Your task to perform on an android device: open chrome privacy settings Image 0: 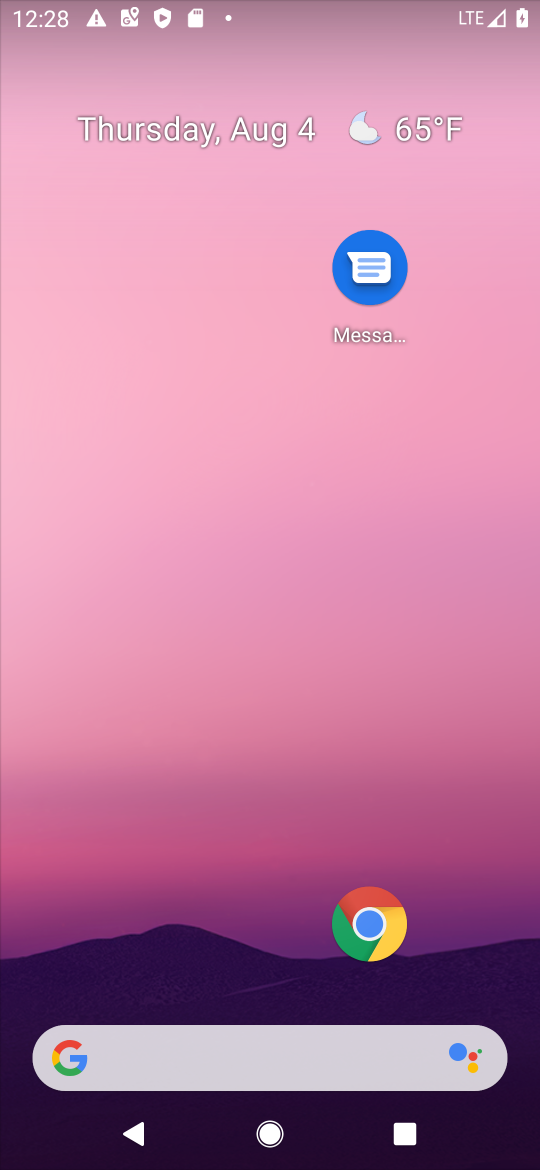
Step 0: click (358, 940)
Your task to perform on an android device: open chrome privacy settings Image 1: 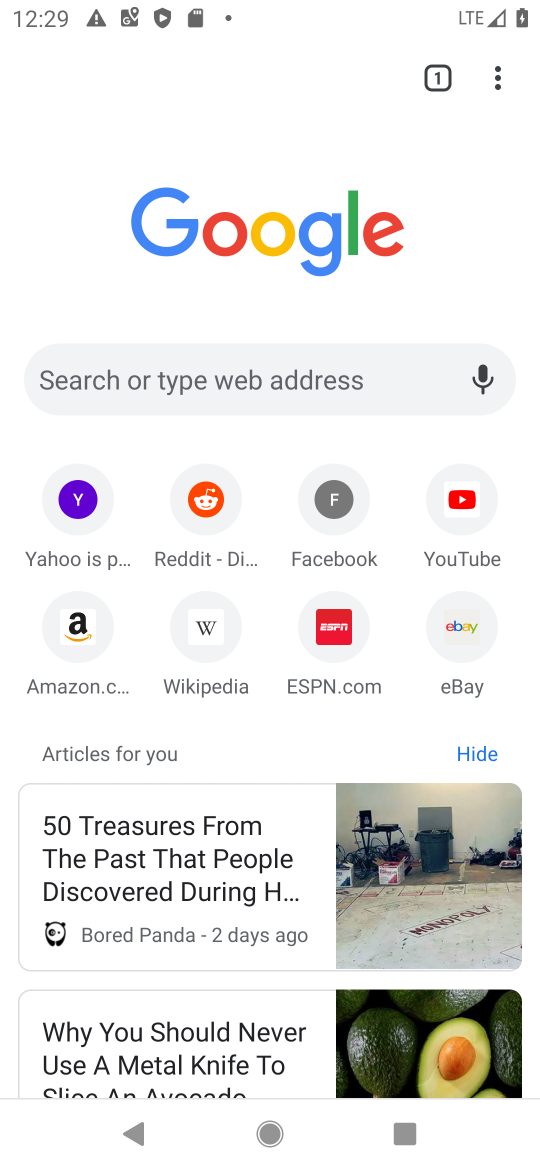
Step 1: click (486, 70)
Your task to perform on an android device: open chrome privacy settings Image 2: 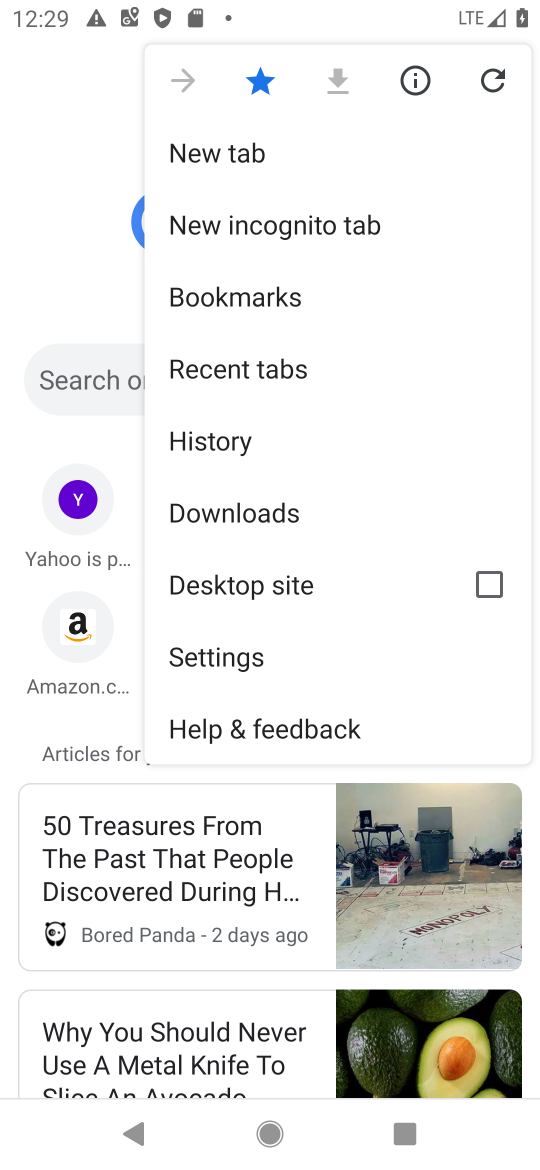
Step 2: click (255, 654)
Your task to perform on an android device: open chrome privacy settings Image 3: 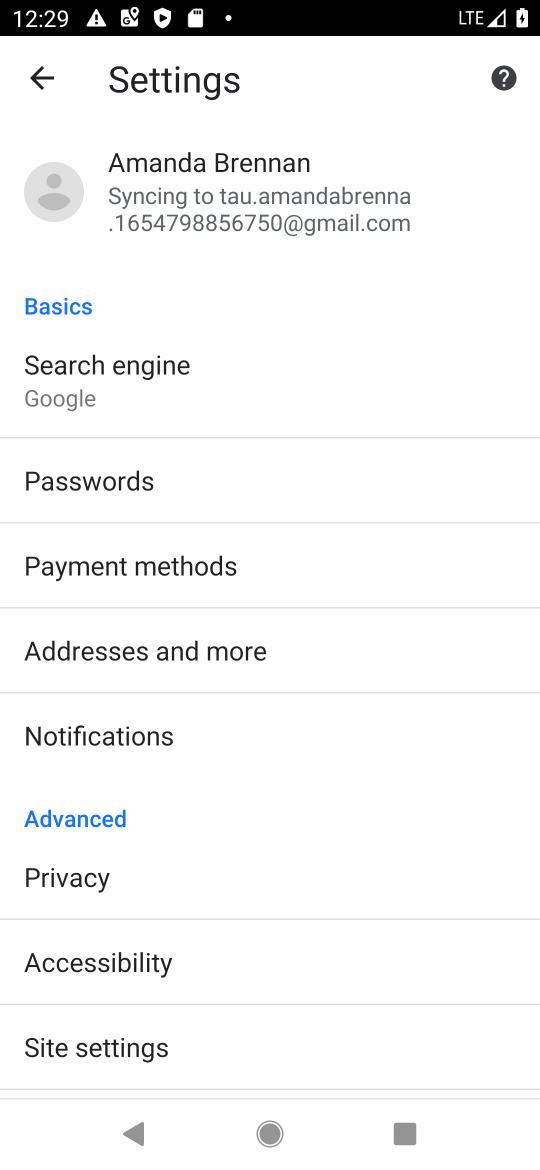
Step 3: click (502, 71)
Your task to perform on an android device: open chrome privacy settings Image 4: 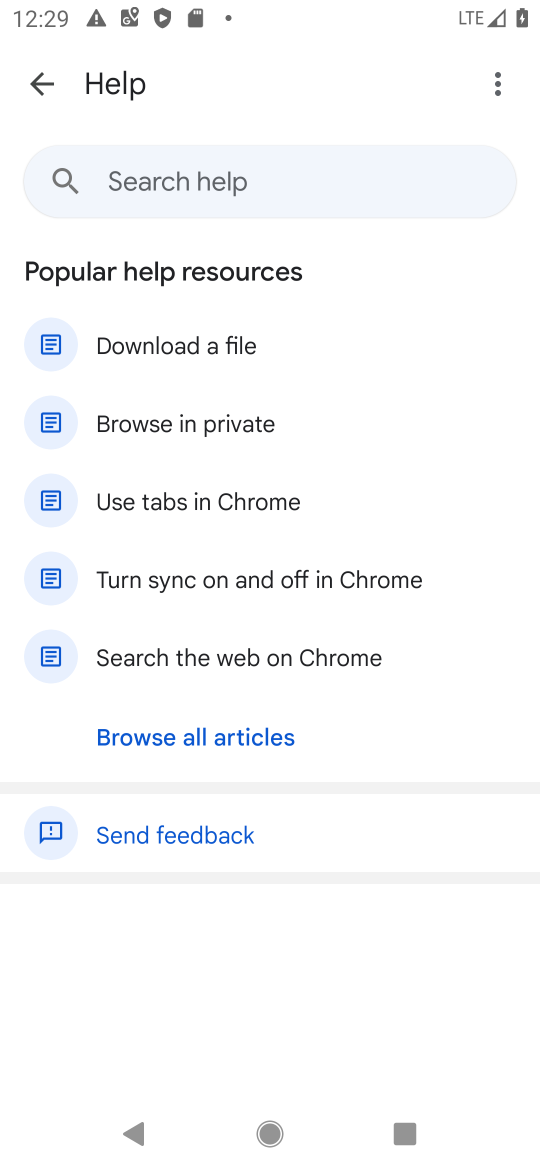
Step 4: click (39, 85)
Your task to perform on an android device: open chrome privacy settings Image 5: 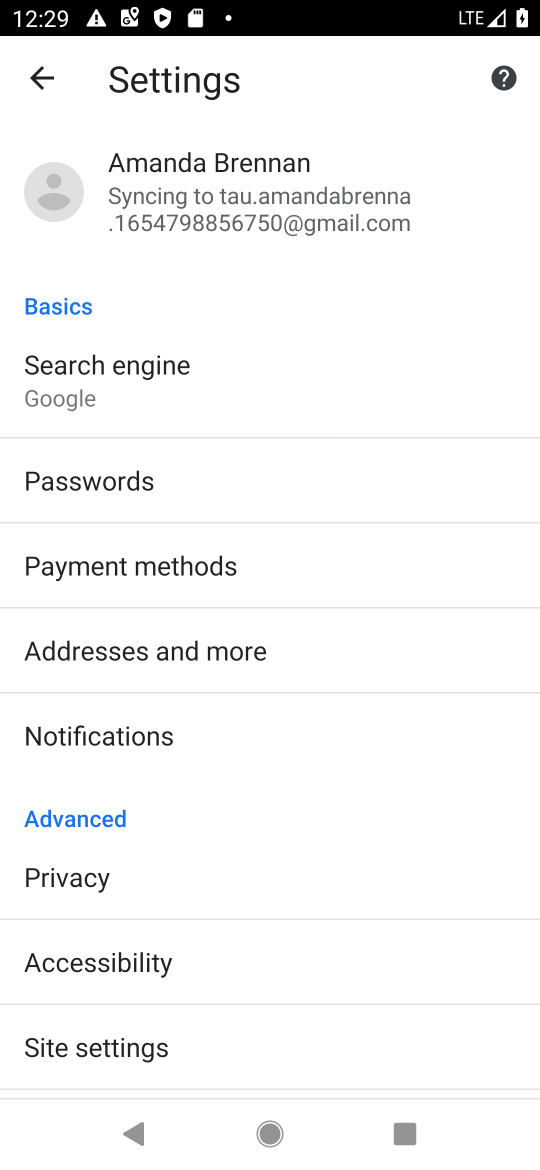
Step 5: click (116, 879)
Your task to perform on an android device: open chrome privacy settings Image 6: 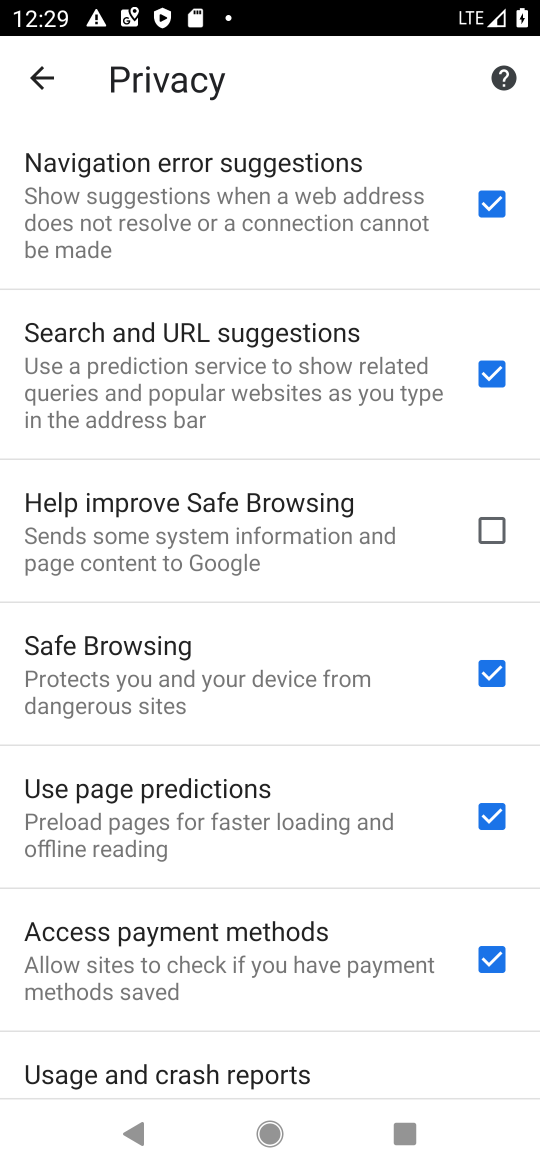
Step 6: task complete